Your task to perform on an android device: Open network settings Image 0: 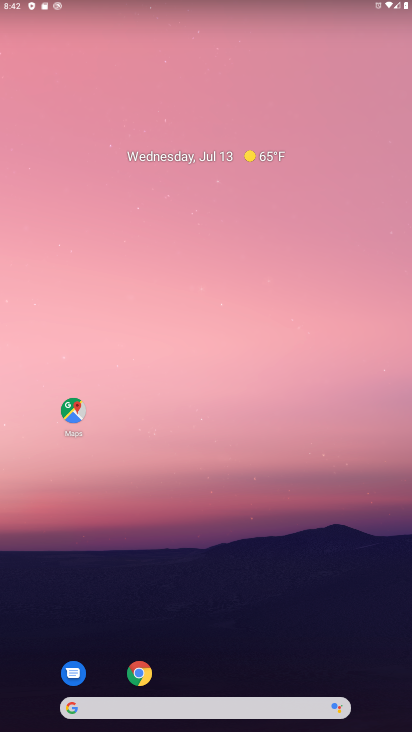
Step 0: drag from (197, 703) to (246, 154)
Your task to perform on an android device: Open network settings Image 1: 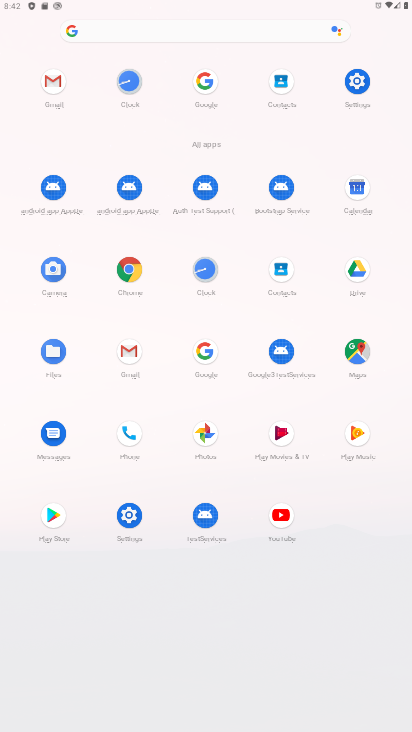
Step 1: click (357, 81)
Your task to perform on an android device: Open network settings Image 2: 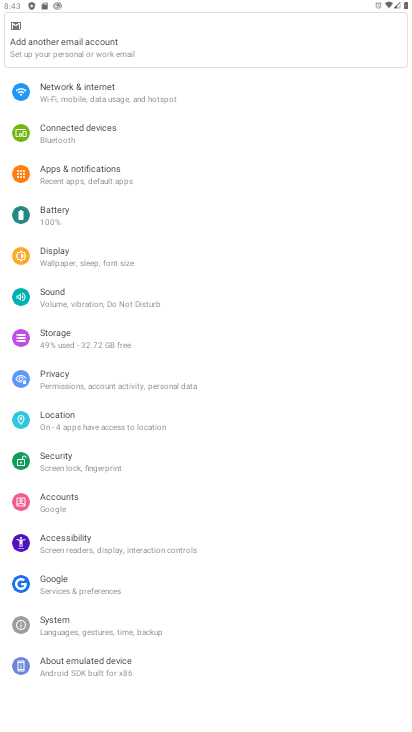
Step 2: click (113, 94)
Your task to perform on an android device: Open network settings Image 3: 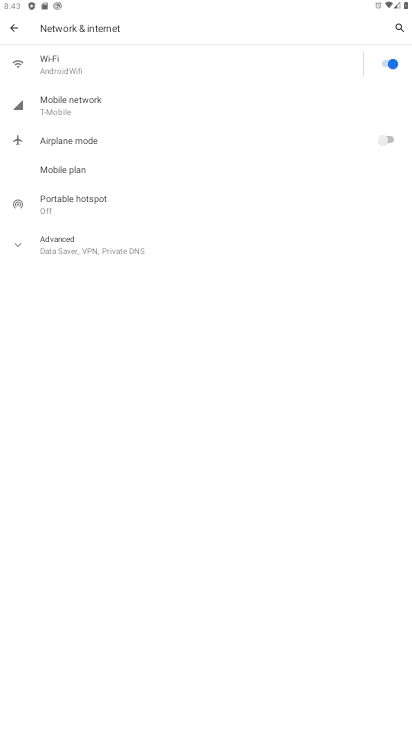
Step 3: task complete